Your task to perform on an android device: Open Google Chrome and click the shortcut for Amazon.com Image 0: 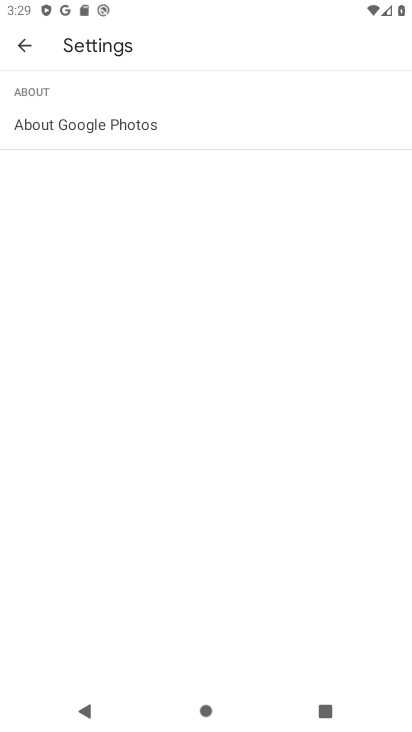
Step 0: press home button
Your task to perform on an android device: Open Google Chrome and click the shortcut for Amazon.com Image 1: 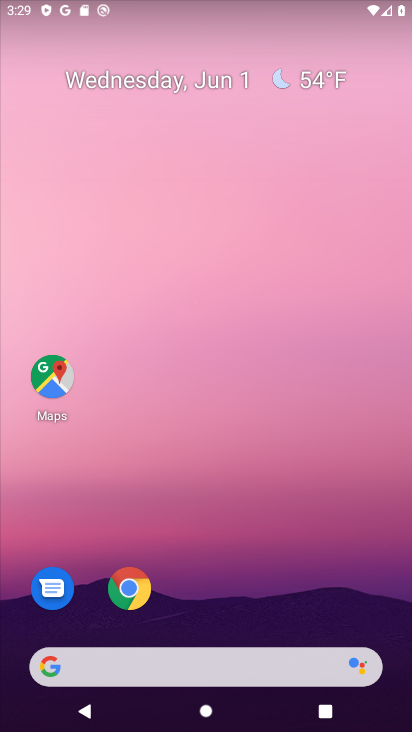
Step 1: drag from (263, 567) to (271, 324)
Your task to perform on an android device: Open Google Chrome and click the shortcut for Amazon.com Image 2: 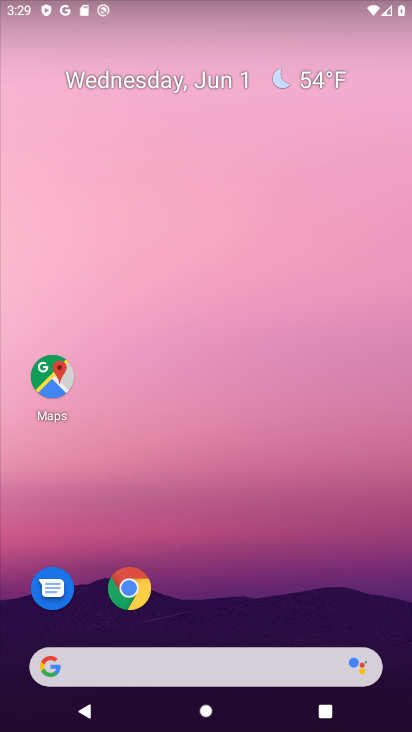
Step 2: click (146, 583)
Your task to perform on an android device: Open Google Chrome and click the shortcut for Amazon.com Image 3: 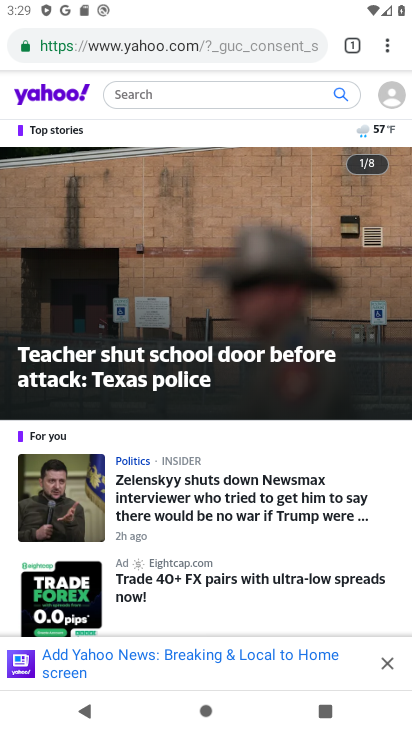
Step 3: click (382, 44)
Your task to perform on an android device: Open Google Chrome and click the shortcut for Amazon.com Image 4: 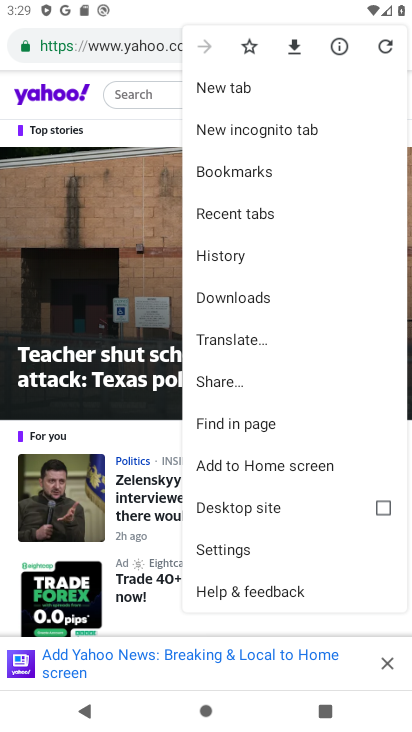
Step 4: click (227, 175)
Your task to perform on an android device: Open Google Chrome and click the shortcut for Amazon.com Image 5: 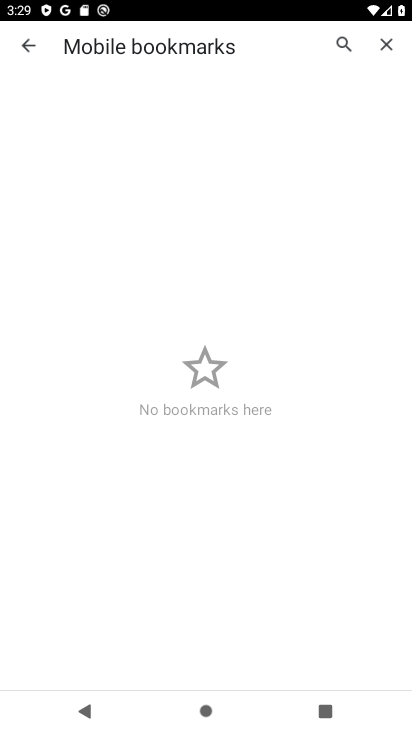
Step 5: click (20, 37)
Your task to perform on an android device: Open Google Chrome and click the shortcut for Amazon.com Image 6: 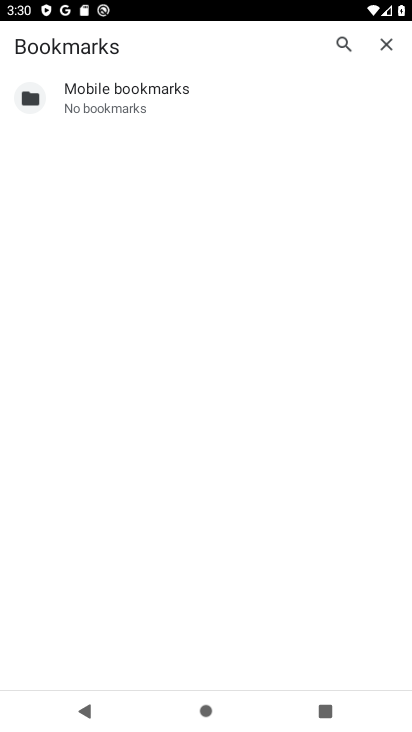
Step 6: click (378, 50)
Your task to perform on an android device: Open Google Chrome and click the shortcut for Amazon.com Image 7: 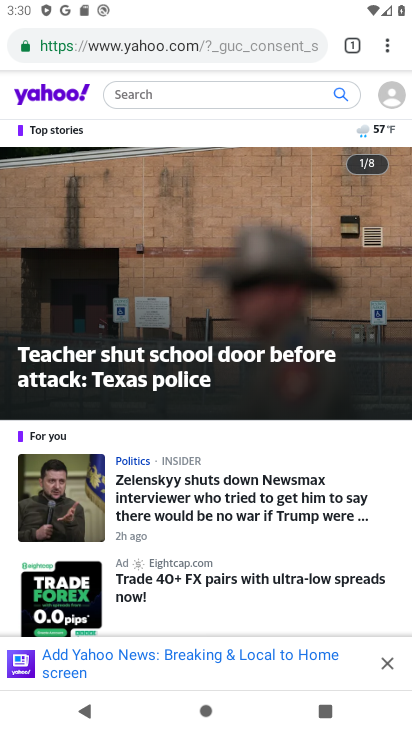
Step 7: click (388, 49)
Your task to perform on an android device: Open Google Chrome and click the shortcut for Amazon.com Image 8: 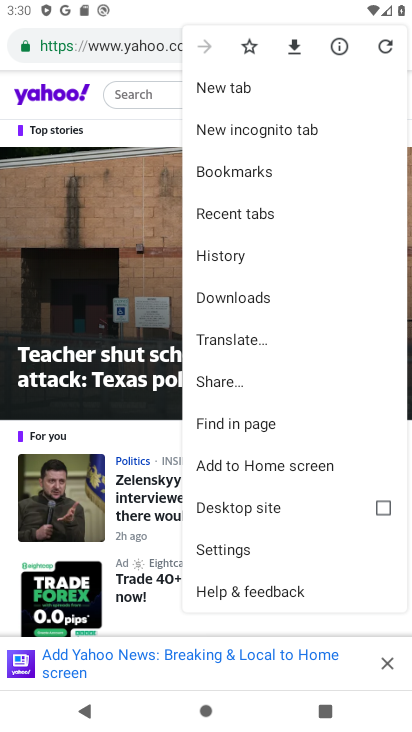
Step 8: click (237, 87)
Your task to perform on an android device: Open Google Chrome and click the shortcut for Amazon.com Image 9: 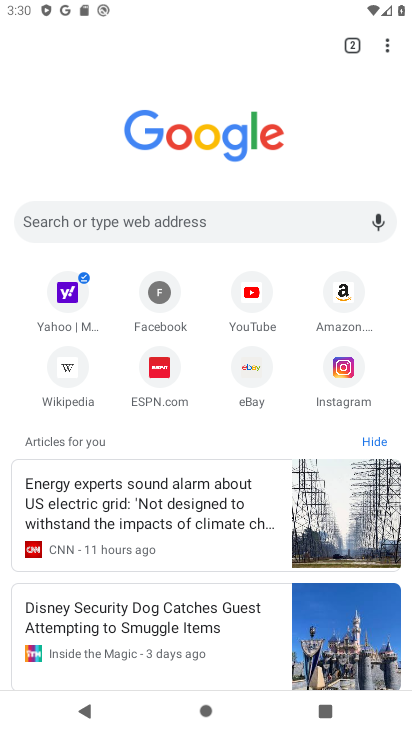
Step 9: click (339, 290)
Your task to perform on an android device: Open Google Chrome and click the shortcut for Amazon.com Image 10: 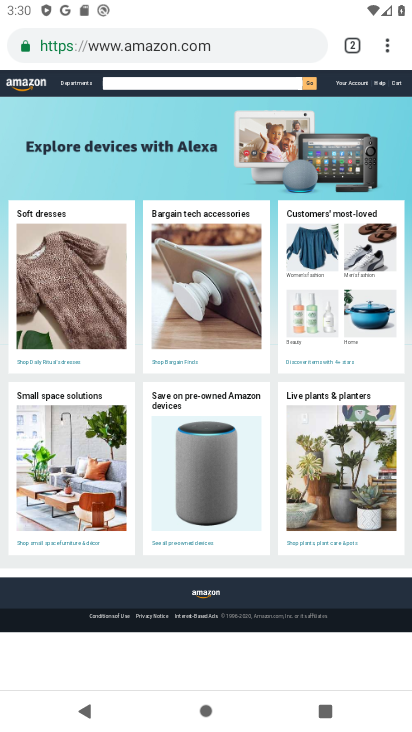
Step 10: task complete